Your task to perform on an android device: move a message to another label in the gmail app Image 0: 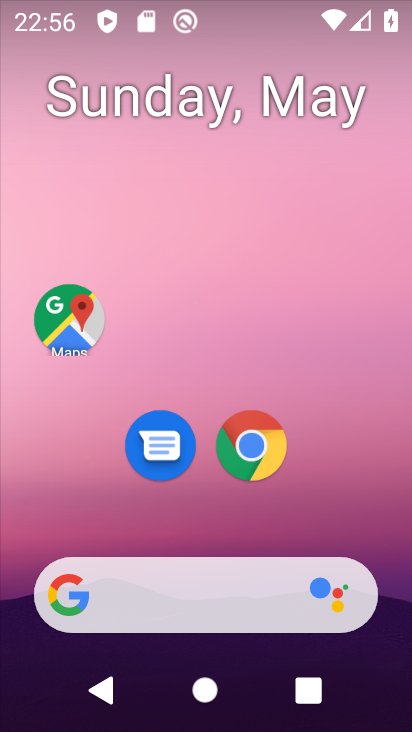
Step 0: drag from (352, 473) to (408, 396)
Your task to perform on an android device: move a message to another label in the gmail app Image 1: 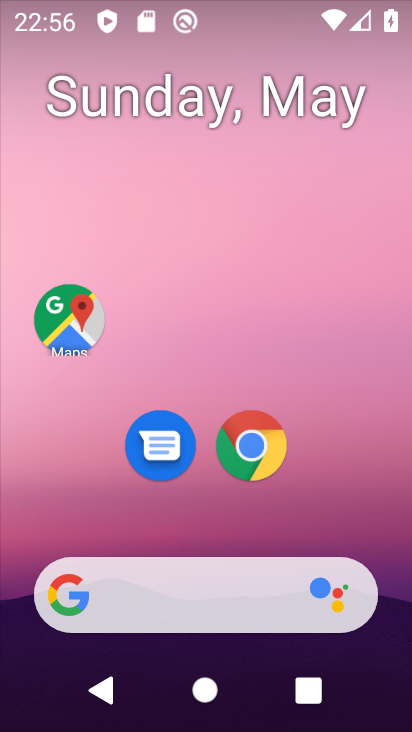
Step 1: drag from (301, 539) to (383, 101)
Your task to perform on an android device: move a message to another label in the gmail app Image 2: 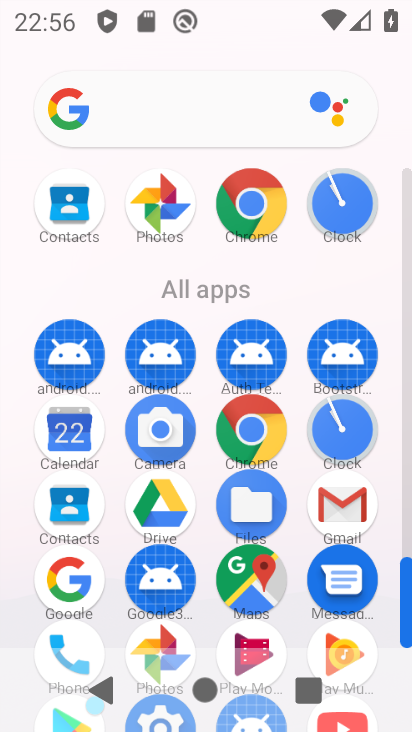
Step 2: click (341, 497)
Your task to perform on an android device: move a message to another label in the gmail app Image 3: 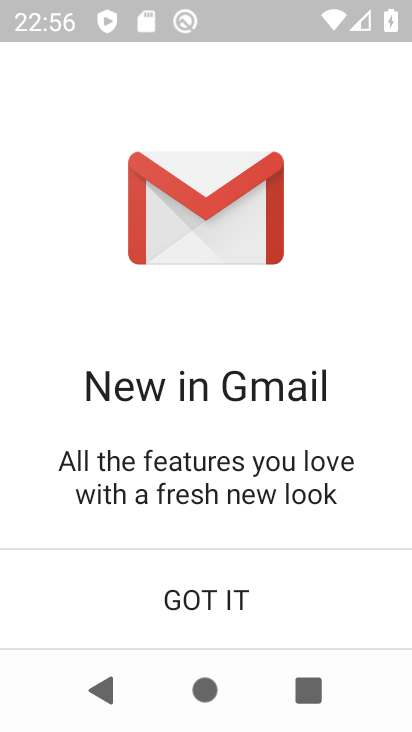
Step 3: click (205, 611)
Your task to perform on an android device: move a message to another label in the gmail app Image 4: 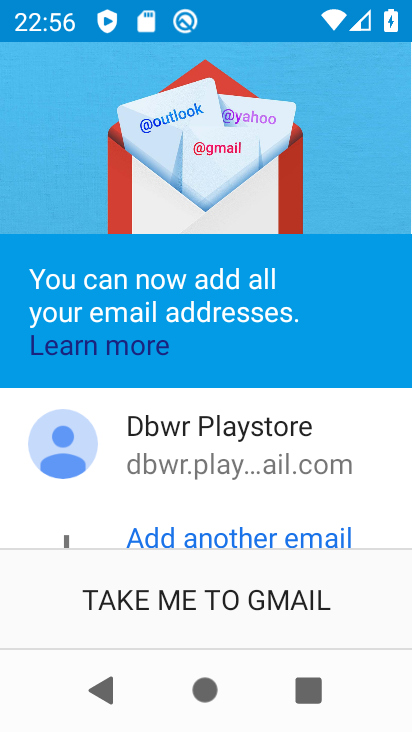
Step 4: click (208, 602)
Your task to perform on an android device: move a message to another label in the gmail app Image 5: 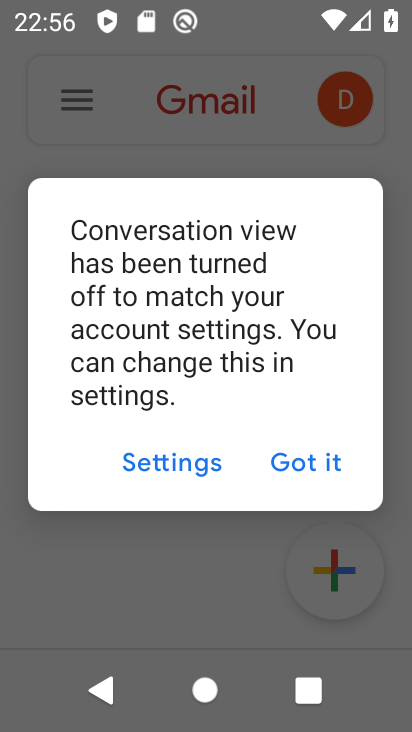
Step 5: click (303, 461)
Your task to perform on an android device: move a message to another label in the gmail app Image 6: 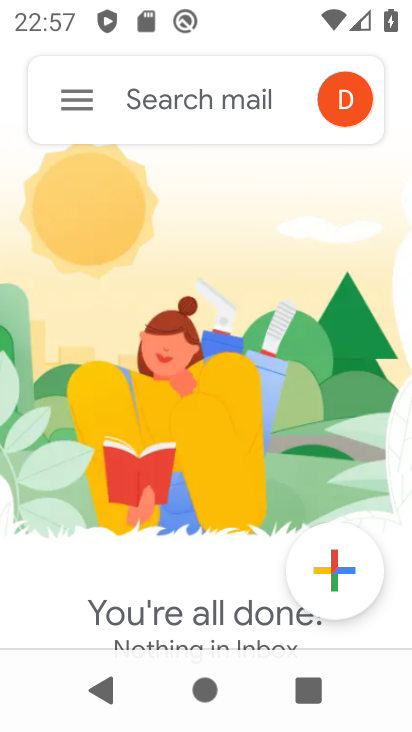
Step 6: task complete